Your task to perform on an android device: turn off data saver in the chrome app Image 0: 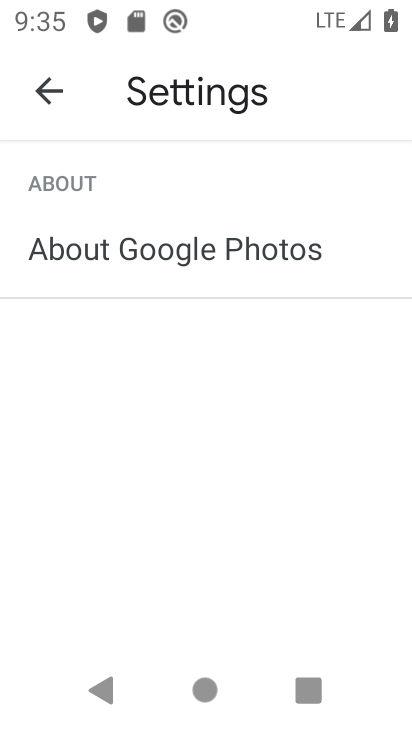
Step 0: press home button
Your task to perform on an android device: turn off data saver in the chrome app Image 1: 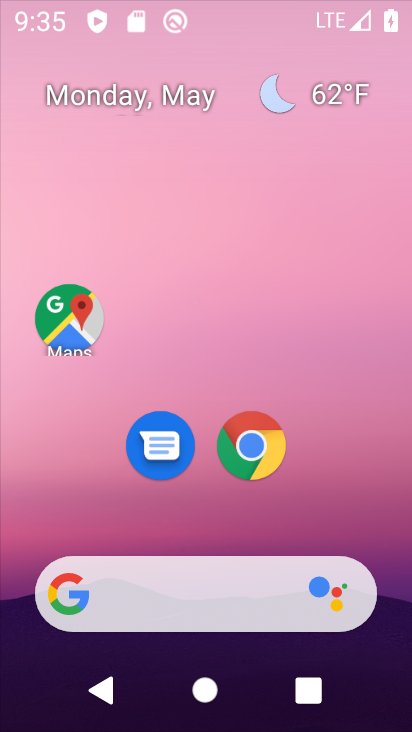
Step 1: drag from (390, 632) to (300, 58)
Your task to perform on an android device: turn off data saver in the chrome app Image 2: 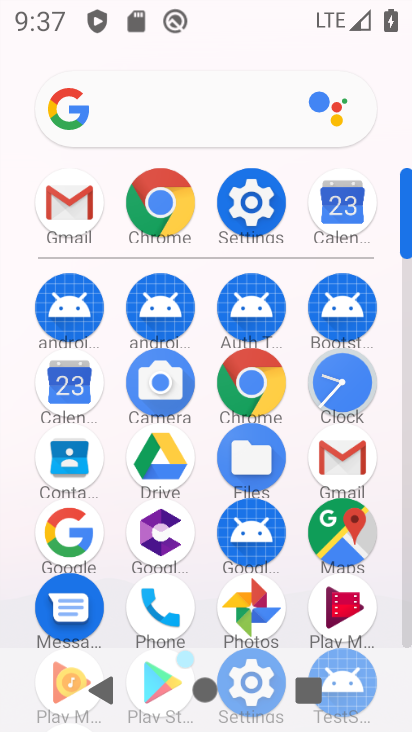
Step 2: click (256, 374)
Your task to perform on an android device: turn off data saver in the chrome app Image 3: 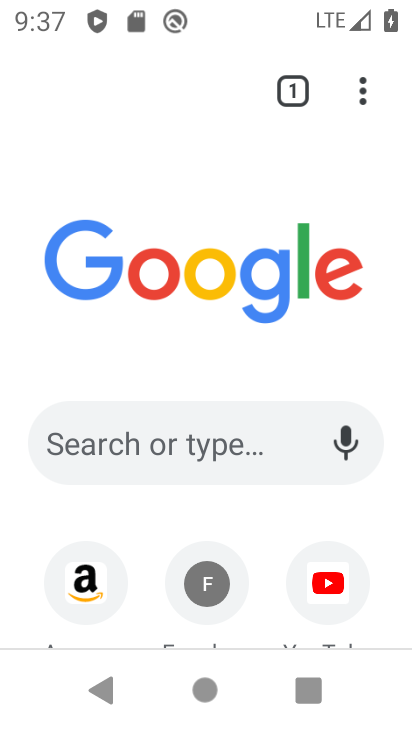
Step 3: click (366, 95)
Your task to perform on an android device: turn off data saver in the chrome app Image 4: 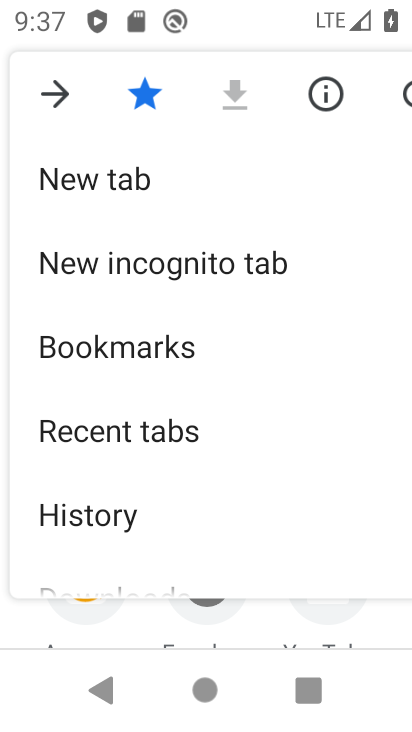
Step 4: drag from (148, 557) to (271, 101)
Your task to perform on an android device: turn off data saver in the chrome app Image 5: 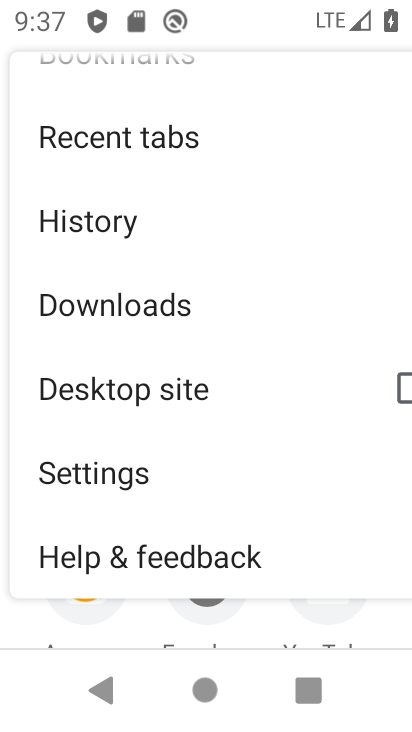
Step 5: drag from (129, 550) to (237, 171)
Your task to perform on an android device: turn off data saver in the chrome app Image 6: 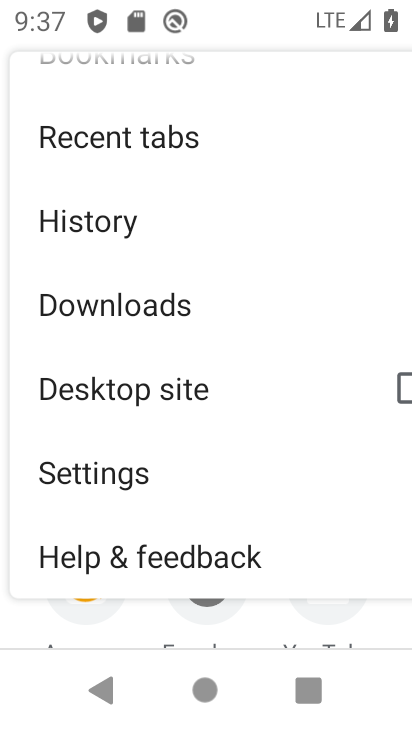
Step 6: click (129, 471)
Your task to perform on an android device: turn off data saver in the chrome app Image 7: 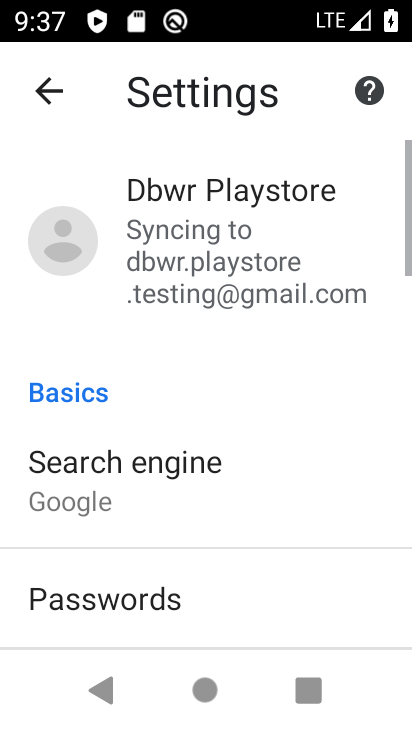
Step 7: drag from (131, 597) to (239, 57)
Your task to perform on an android device: turn off data saver in the chrome app Image 8: 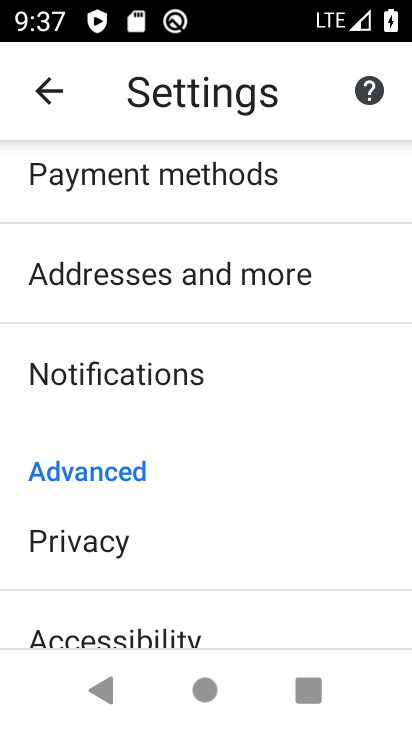
Step 8: drag from (130, 607) to (227, 128)
Your task to perform on an android device: turn off data saver in the chrome app Image 9: 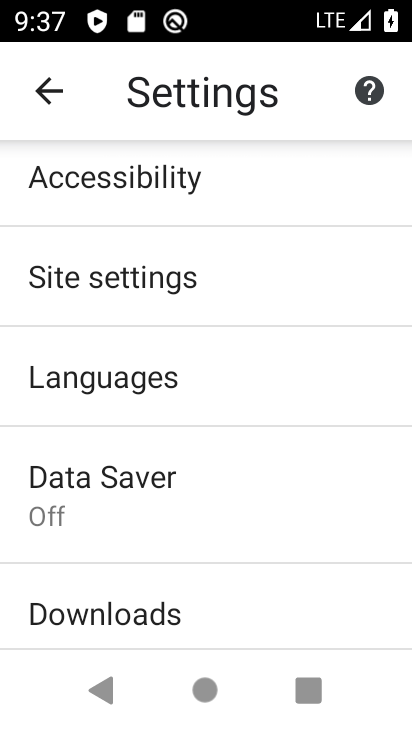
Step 9: click (116, 492)
Your task to perform on an android device: turn off data saver in the chrome app Image 10: 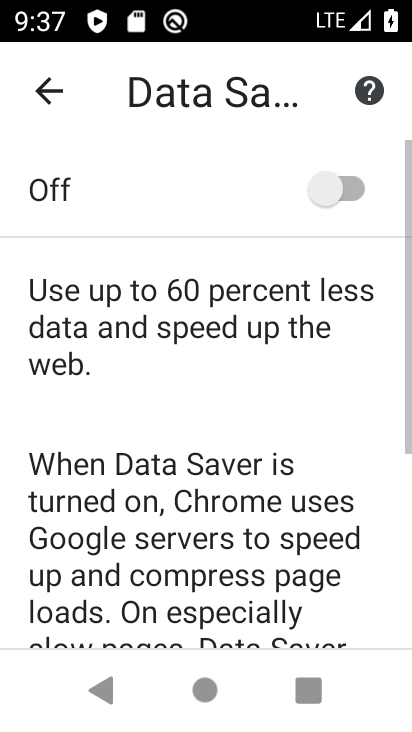
Step 10: click (319, 203)
Your task to perform on an android device: turn off data saver in the chrome app Image 11: 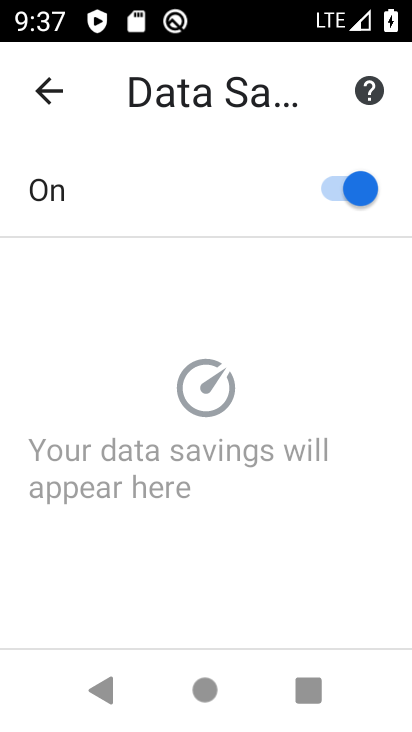
Step 11: click (319, 203)
Your task to perform on an android device: turn off data saver in the chrome app Image 12: 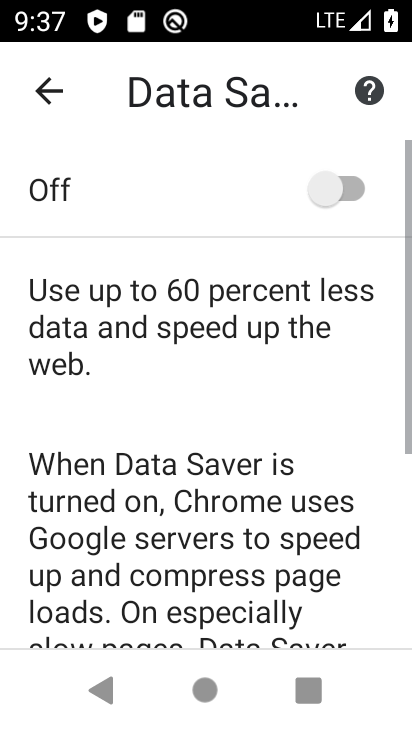
Step 12: task complete